Your task to perform on an android device: snooze an email in the gmail app Image 0: 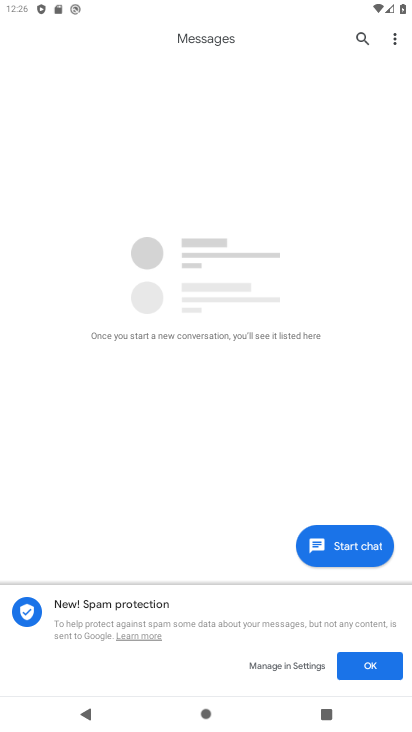
Step 0: press home button
Your task to perform on an android device: snooze an email in the gmail app Image 1: 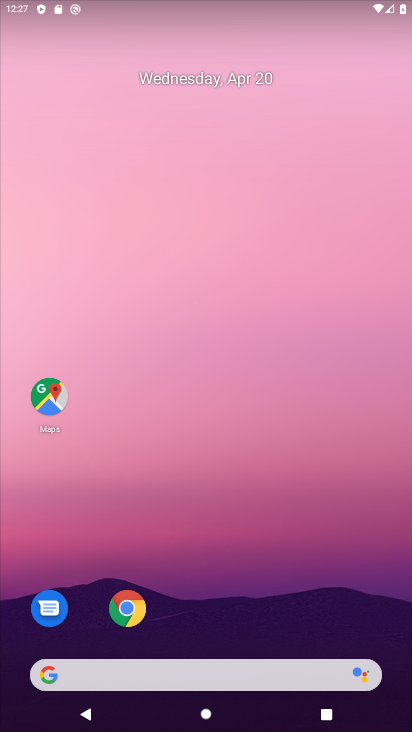
Step 1: drag from (276, 636) to (186, 118)
Your task to perform on an android device: snooze an email in the gmail app Image 2: 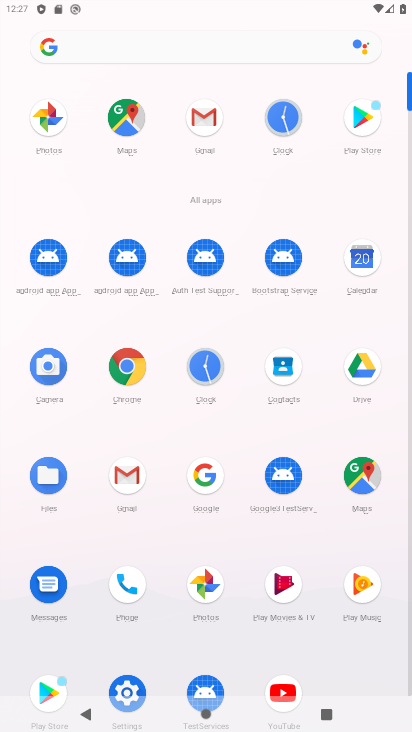
Step 2: click (202, 118)
Your task to perform on an android device: snooze an email in the gmail app Image 3: 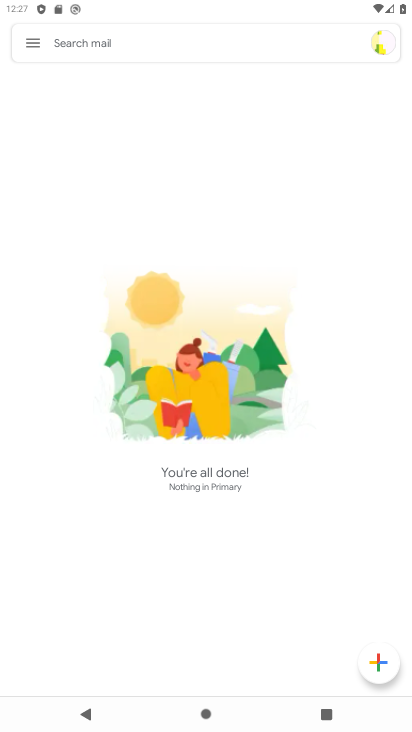
Step 3: click (28, 39)
Your task to perform on an android device: snooze an email in the gmail app Image 4: 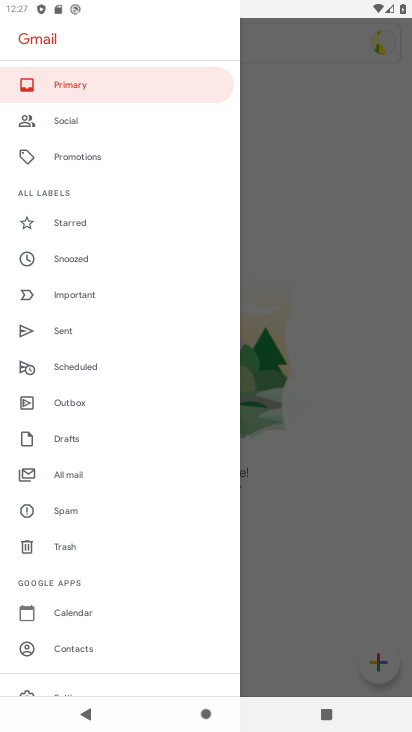
Step 4: click (81, 470)
Your task to perform on an android device: snooze an email in the gmail app Image 5: 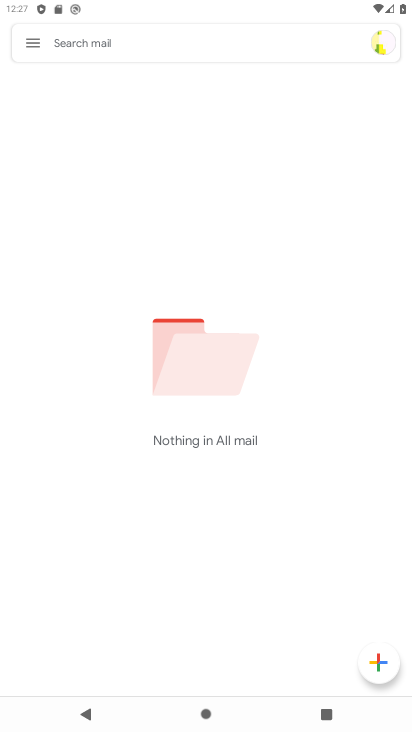
Step 5: task complete